Your task to perform on an android device: Check the news Image 0: 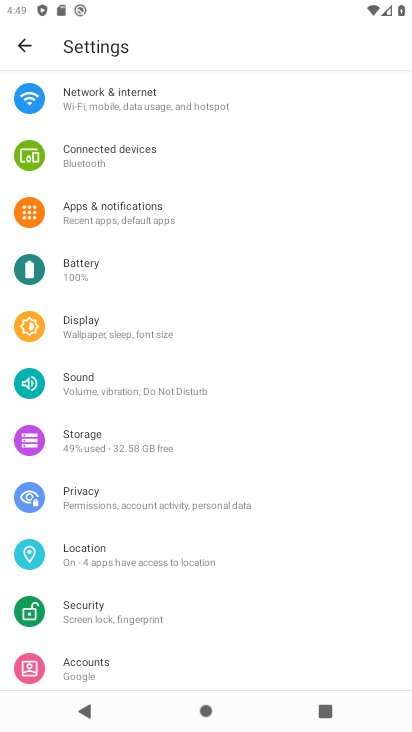
Step 0: press home button
Your task to perform on an android device: Check the news Image 1: 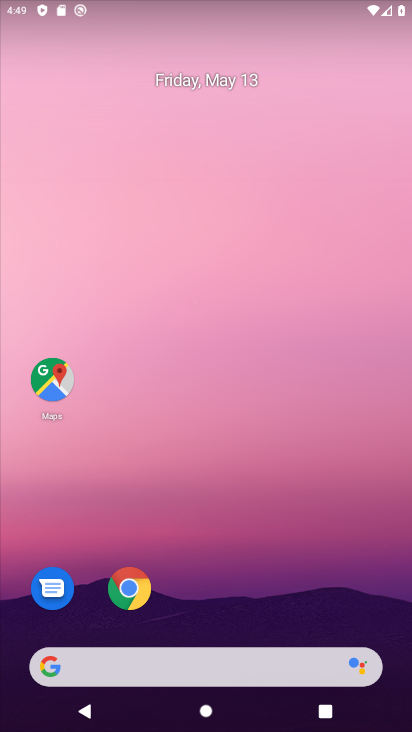
Step 1: task complete